Your task to perform on an android device: Go to eBay Image 0: 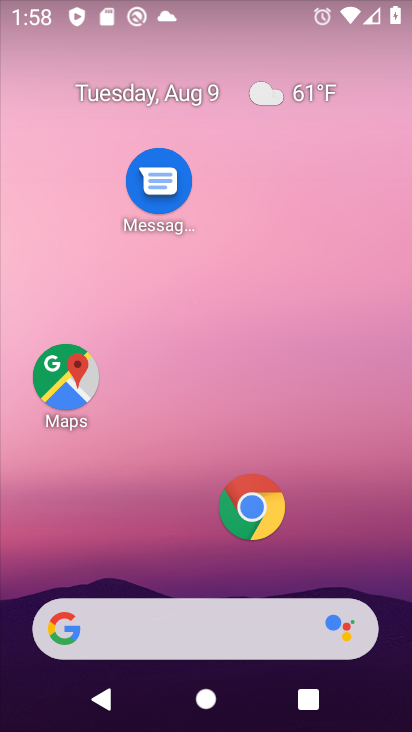
Step 0: click (263, 507)
Your task to perform on an android device: Go to eBay Image 1: 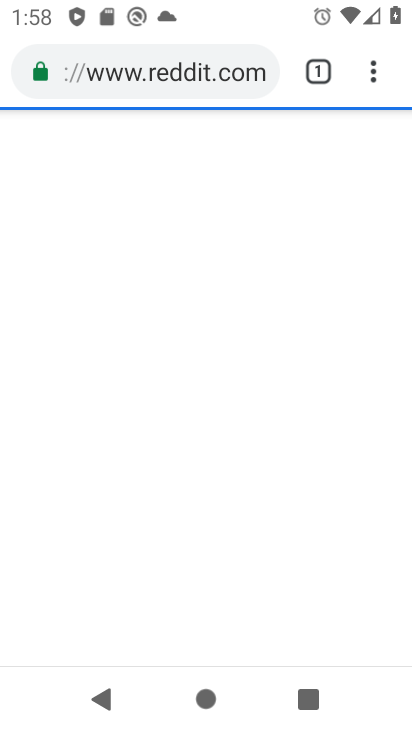
Step 1: click (319, 64)
Your task to perform on an android device: Go to eBay Image 2: 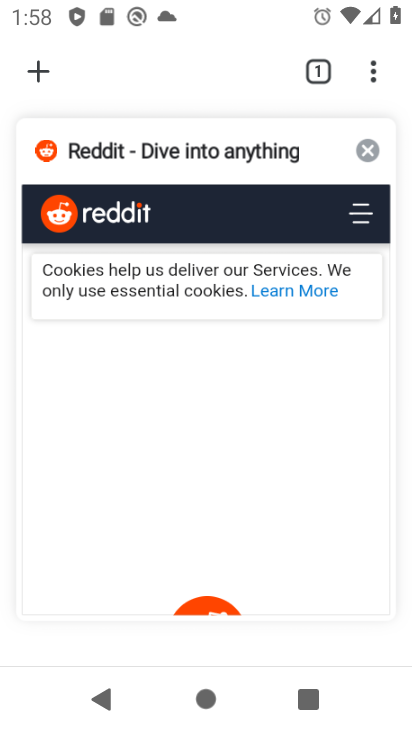
Step 2: click (45, 72)
Your task to perform on an android device: Go to eBay Image 3: 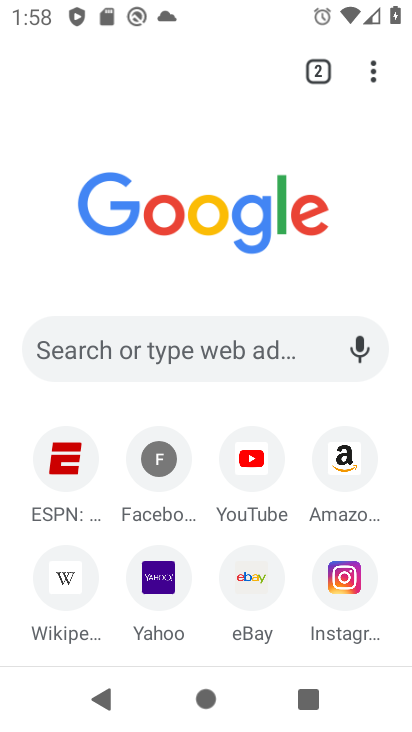
Step 3: click (240, 577)
Your task to perform on an android device: Go to eBay Image 4: 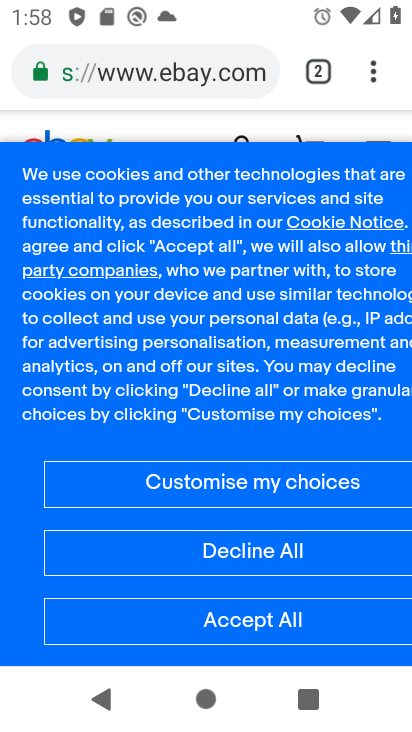
Step 4: task complete